Your task to perform on an android device: turn off notifications in google photos Image 0: 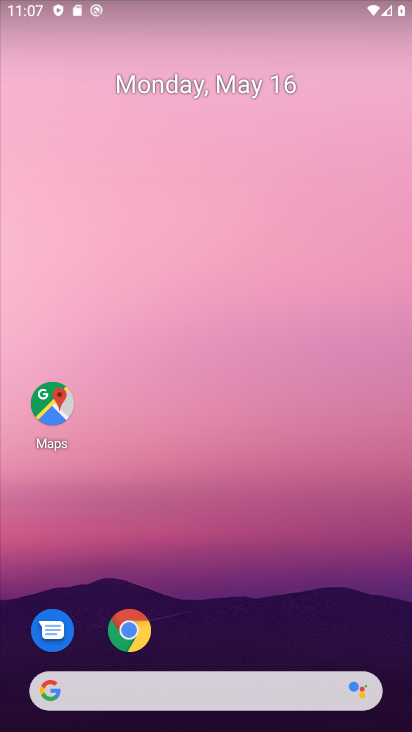
Step 0: drag from (255, 636) to (259, 92)
Your task to perform on an android device: turn off notifications in google photos Image 1: 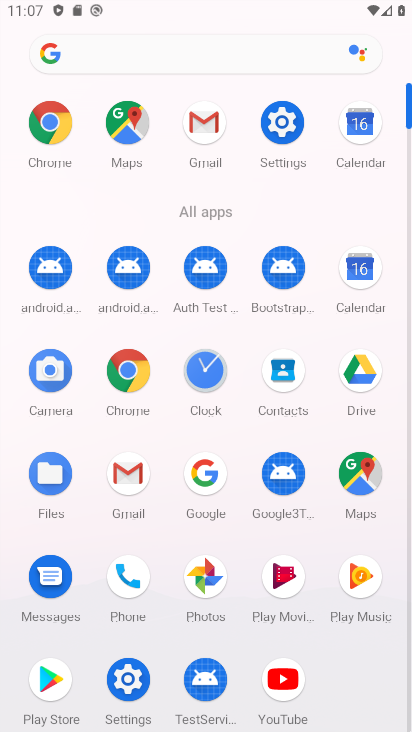
Step 1: click (203, 593)
Your task to perform on an android device: turn off notifications in google photos Image 2: 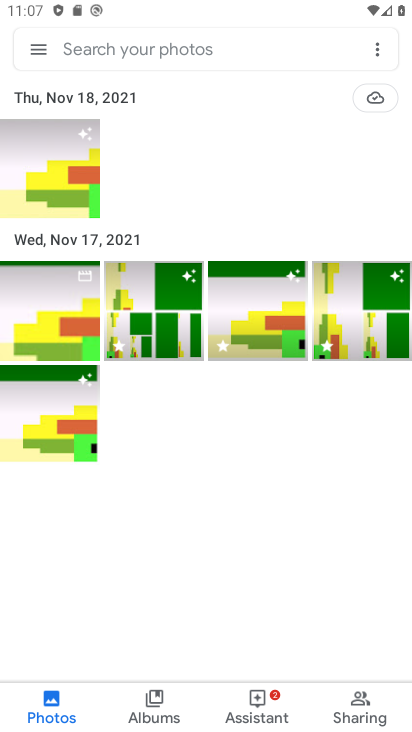
Step 2: click (43, 46)
Your task to perform on an android device: turn off notifications in google photos Image 3: 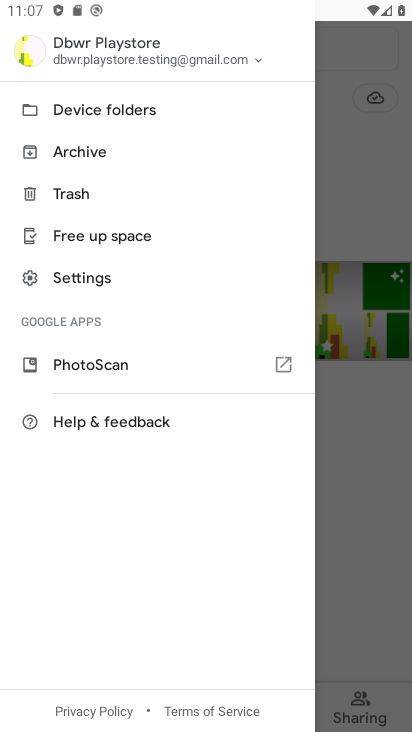
Step 3: click (136, 275)
Your task to perform on an android device: turn off notifications in google photos Image 4: 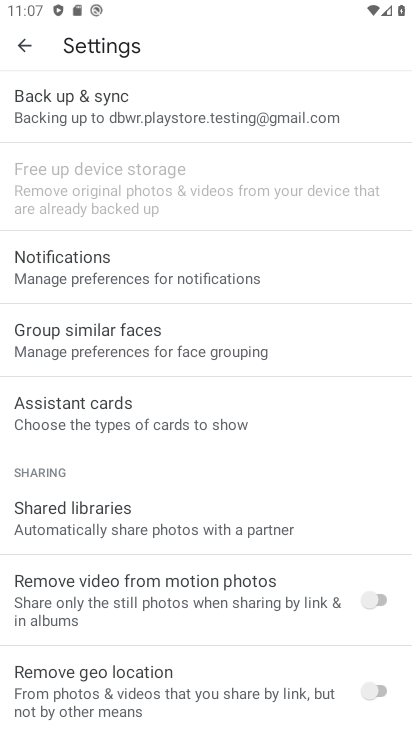
Step 4: click (136, 275)
Your task to perform on an android device: turn off notifications in google photos Image 5: 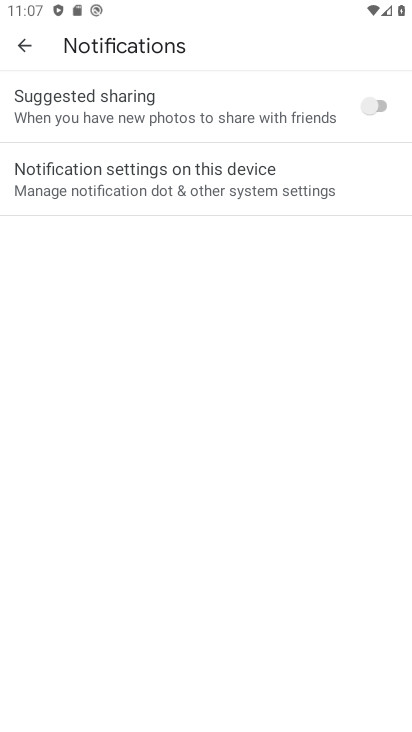
Step 5: click (303, 183)
Your task to perform on an android device: turn off notifications in google photos Image 6: 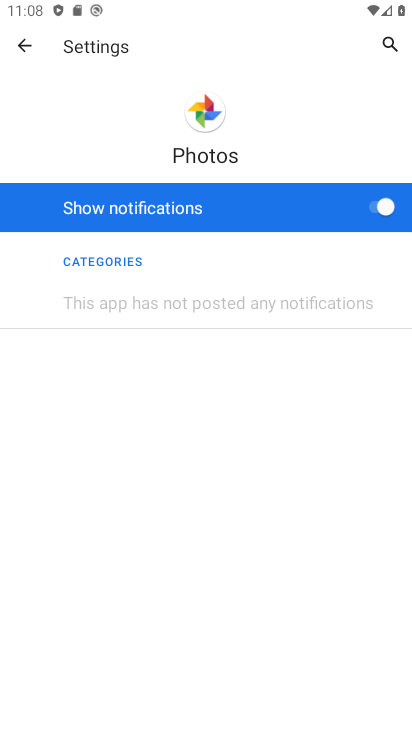
Step 6: click (371, 219)
Your task to perform on an android device: turn off notifications in google photos Image 7: 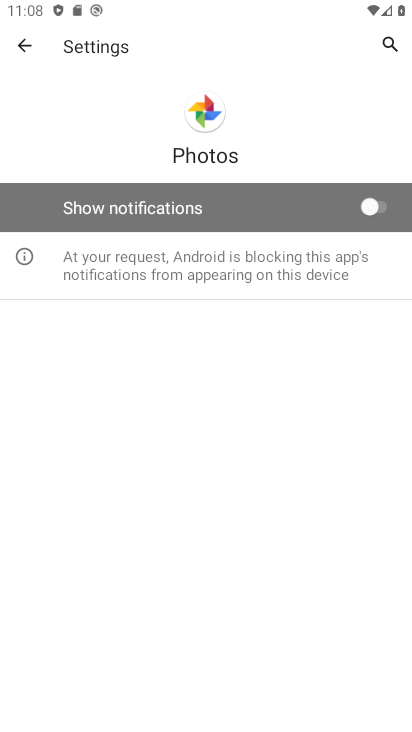
Step 7: task complete